Your task to perform on an android device: change your default location settings in chrome Image 0: 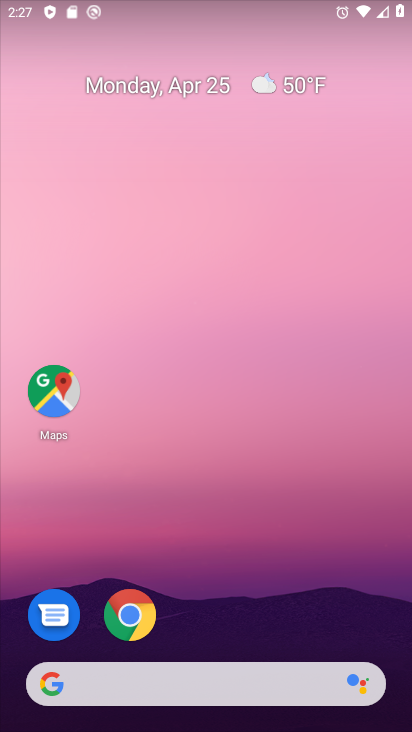
Step 0: click (127, 614)
Your task to perform on an android device: change your default location settings in chrome Image 1: 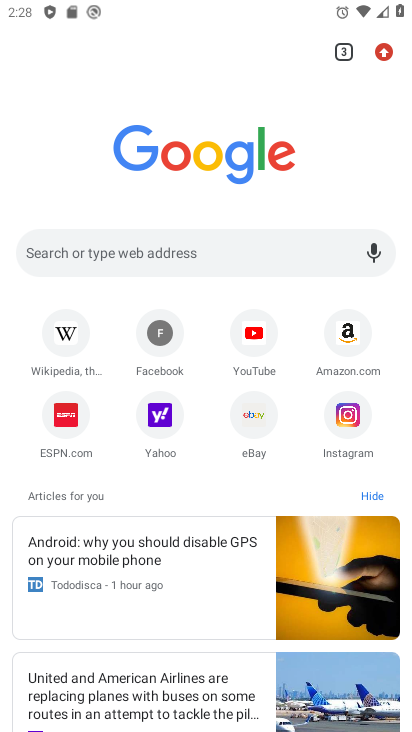
Step 1: click (386, 50)
Your task to perform on an android device: change your default location settings in chrome Image 2: 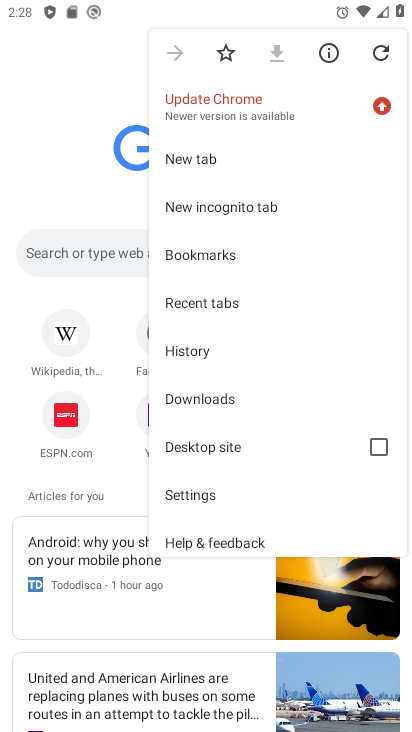
Step 2: click (195, 494)
Your task to perform on an android device: change your default location settings in chrome Image 3: 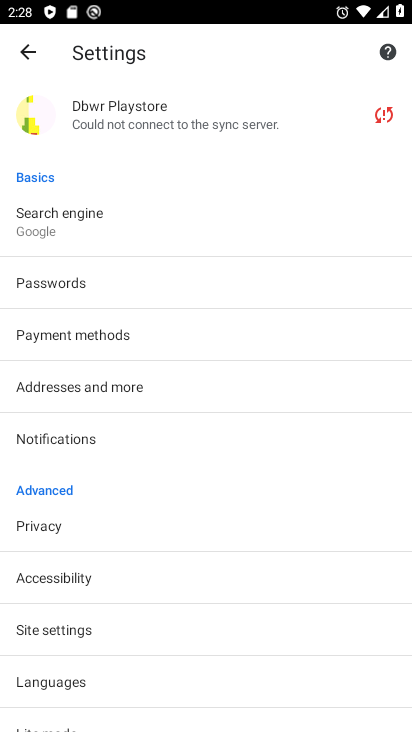
Step 3: click (52, 628)
Your task to perform on an android device: change your default location settings in chrome Image 4: 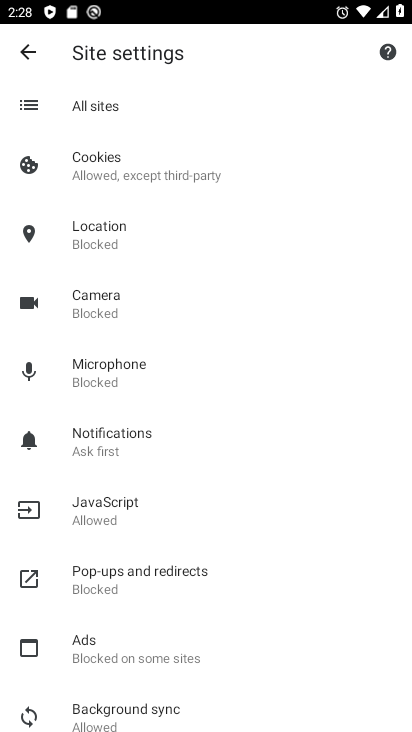
Step 4: click (92, 244)
Your task to perform on an android device: change your default location settings in chrome Image 5: 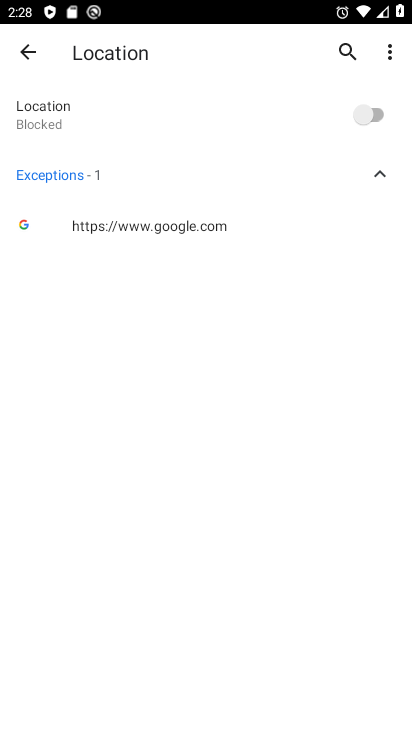
Step 5: click (370, 112)
Your task to perform on an android device: change your default location settings in chrome Image 6: 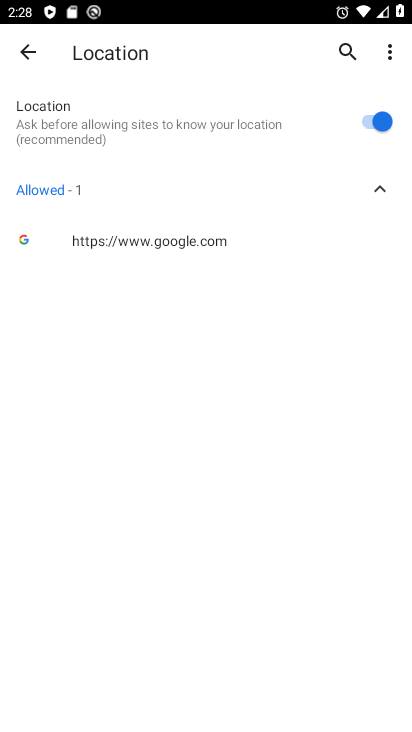
Step 6: task complete